Your task to perform on an android device: change the clock display to analog Image 0: 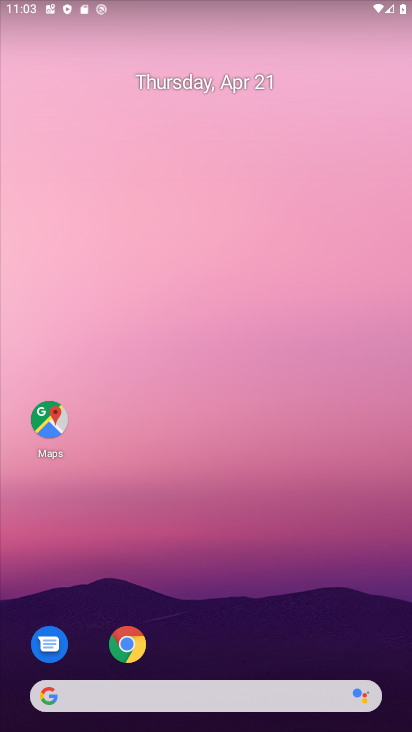
Step 0: drag from (275, 674) to (244, 241)
Your task to perform on an android device: change the clock display to analog Image 1: 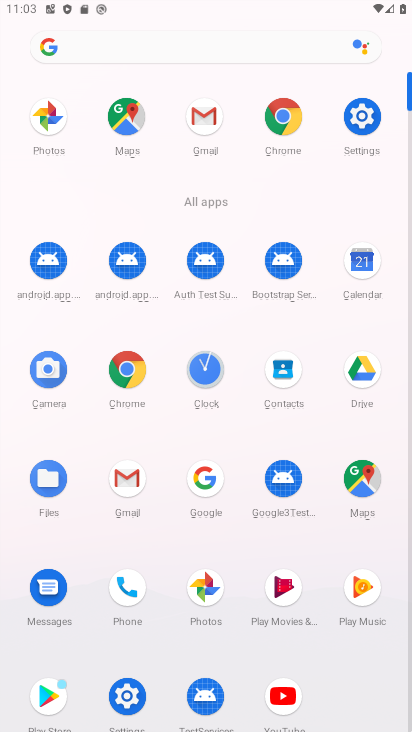
Step 1: click (199, 369)
Your task to perform on an android device: change the clock display to analog Image 2: 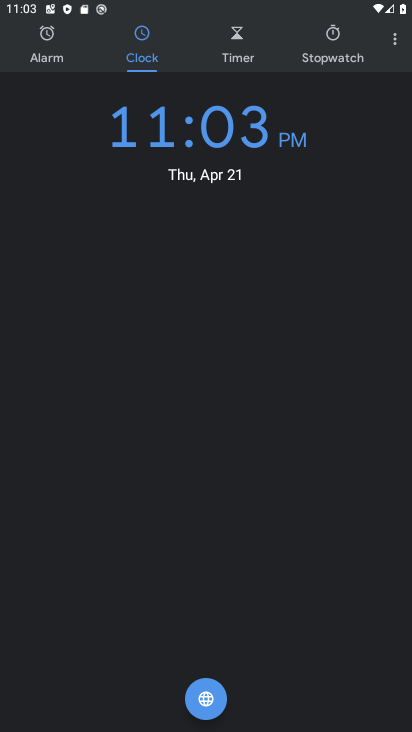
Step 2: click (397, 42)
Your task to perform on an android device: change the clock display to analog Image 3: 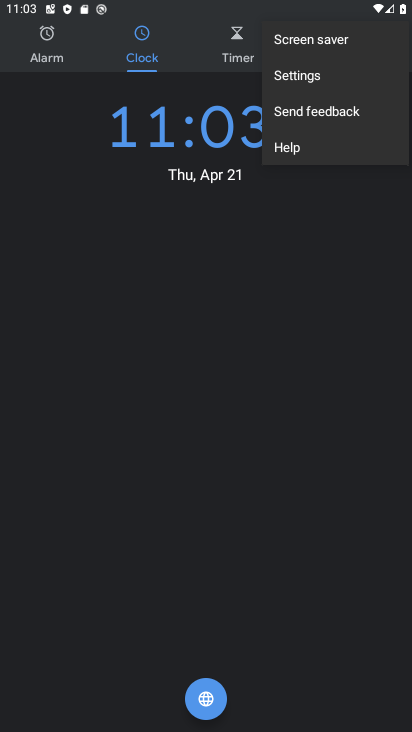
Step 3: click (375, 76)
Your task to perform on an android device: change the clock display to analog Image 4: 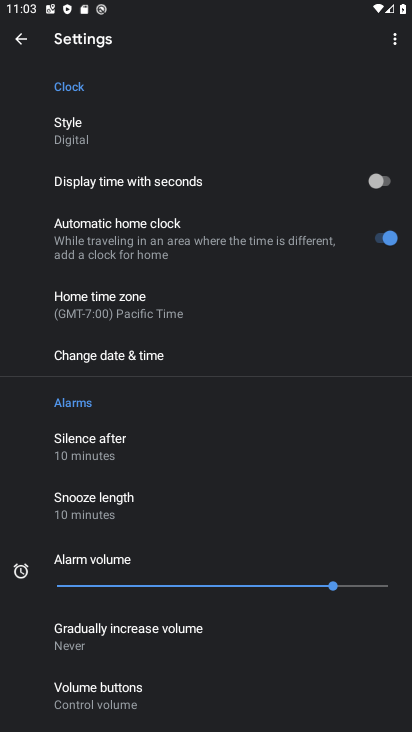
Step 4: click (243, 134)
Your task to perform on an android device: change the clock display to analog Image 5: 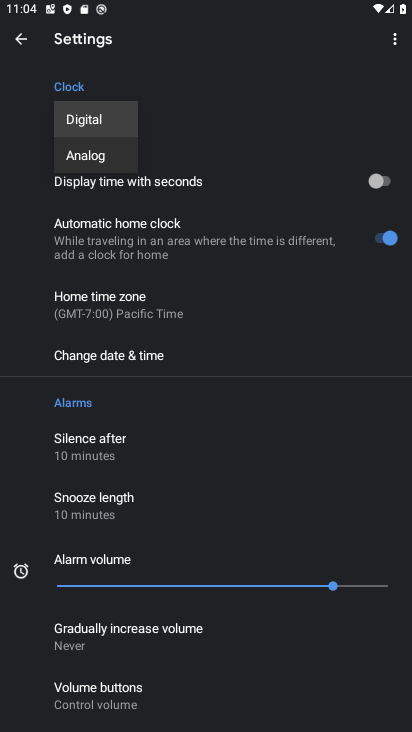
Step 5: click (75, 152)
Your task to perform on an android device: change the clock display to analog Image 6: 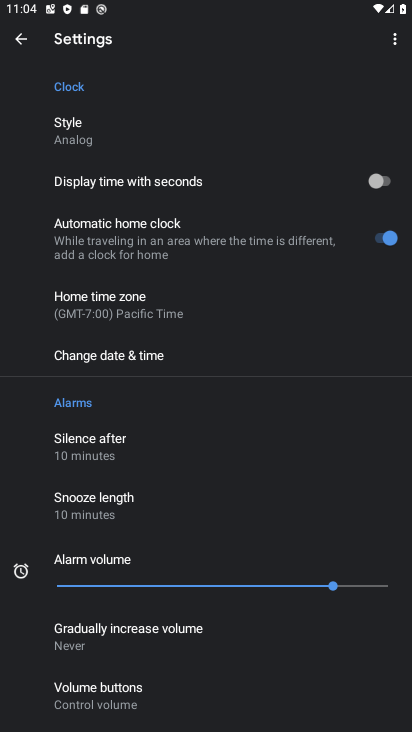
Step 6: task complete